Your task to perform on an android device: read, delete, or share a saved page in the chrome app Image 0: 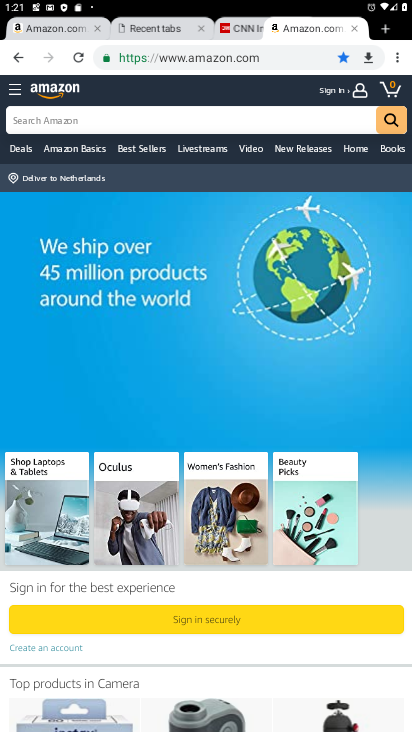
Step 0: press home button
Your task to perform on an android device: read, delete, or share a saved page in the chrome app Image 1: 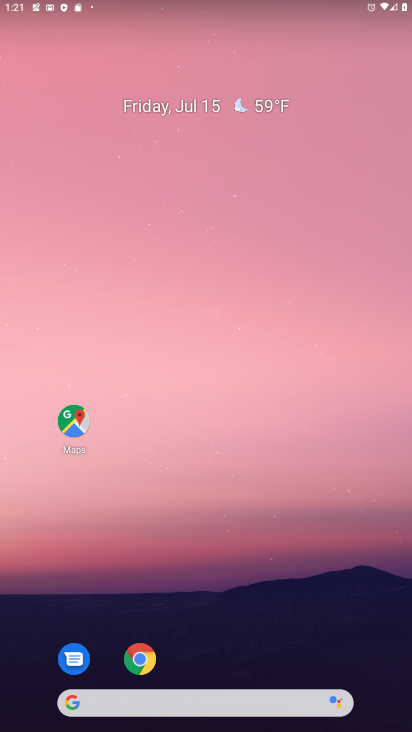
Step 1: click (143, 663)
Your task to perform on an android device: read, delete, or share a saved page in the chrome app Image 2: 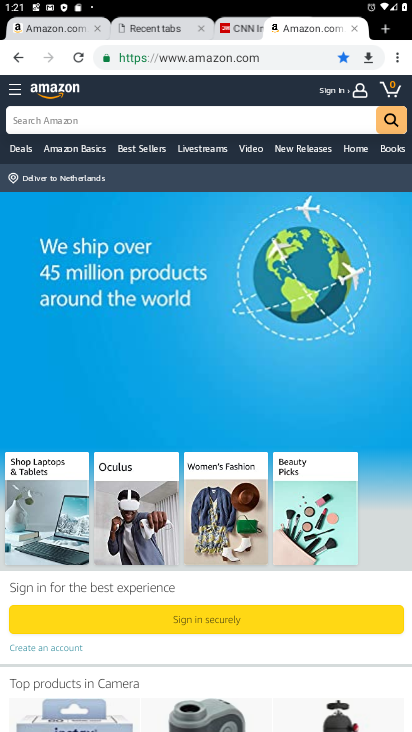
Step 2: click (399, 61)
Your task to perform on an android device: read, delete, or share a saved page in the chrome app Image 3: 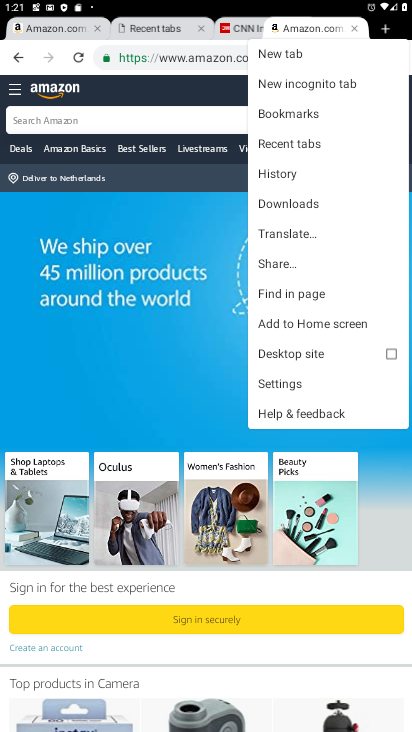
Step 3: click (271, 385)
Your task to perform on an android device: read, delete, or share a saved page in the chrome app Image 4: 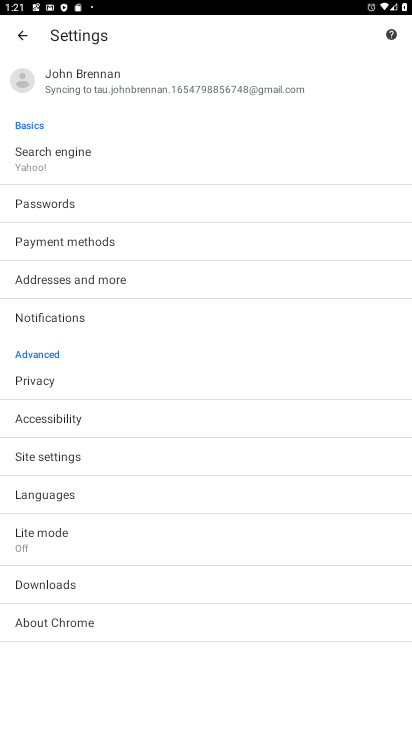
Step 4: click (23, 40)
Your task to perform on an android device: read, delete, or share a saved page in the chrome app Image 5: 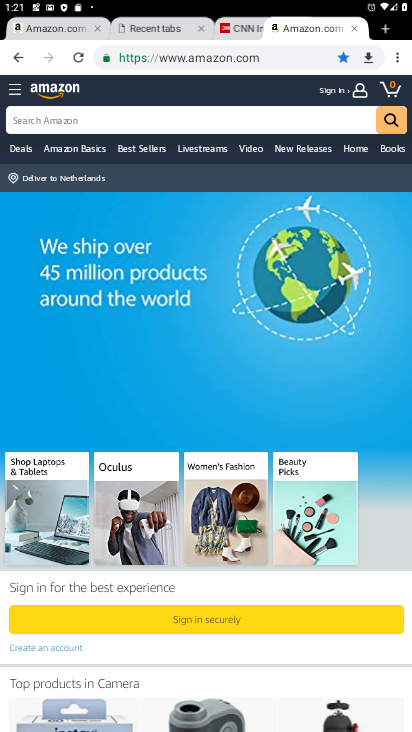
Step 5: click (398, 56)
Your task to perform on an android device: read, delete, or share a saved page in the chrome app Image 6: 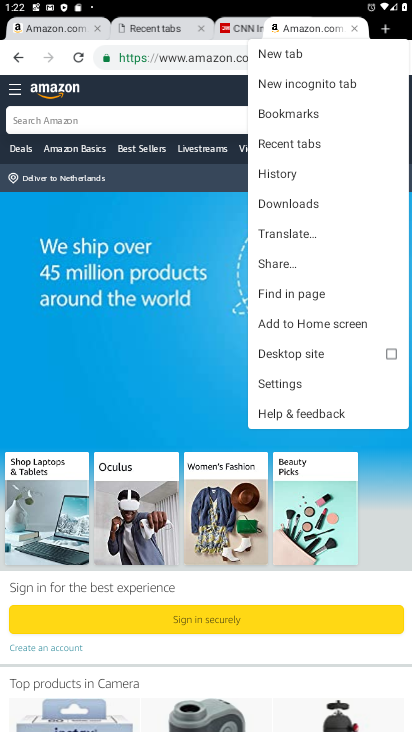
Step 6: click (301, 201)
Your task to perform on an android device: read, delete, or share a saved page in the chrome app Image 7: 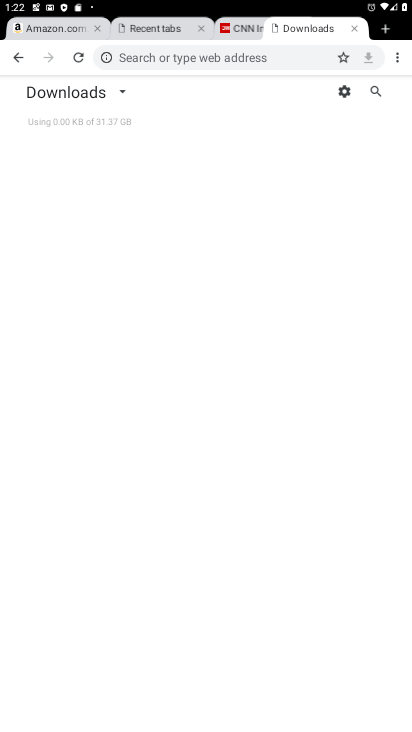
Step 7: task complete